Your task to perform on an android device: change alarm snooze length Image 0: 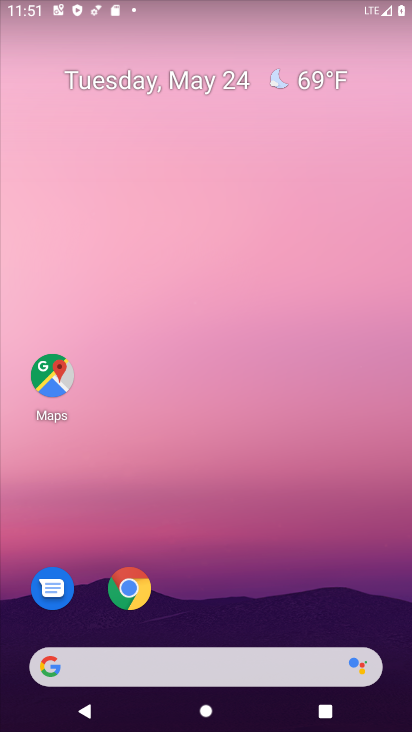
Step 0: drag from (196, 621) to (230, 22)
Your task to perform on an android device: change alarm snooze length Image 1: 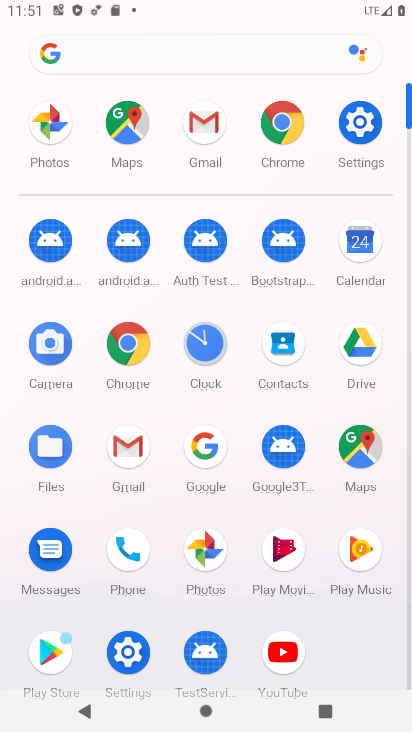
Step 1: click (201, 338)
Your task to perform on an android device: change alarm snooze length Image 2: 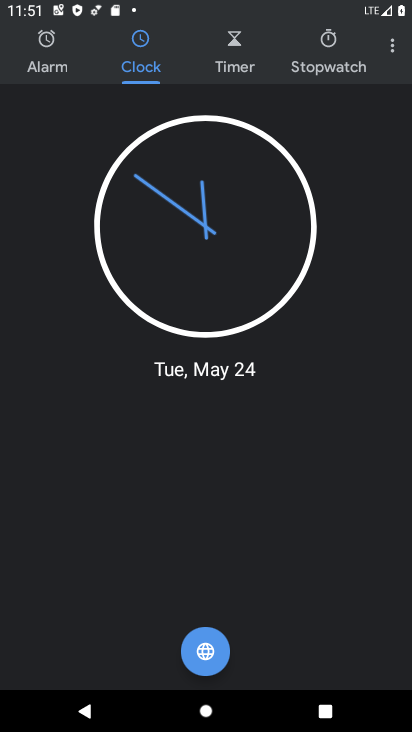
Step 2: click (390, 37)
Your task to perform on an android device: change alarm snooze length Image 3: 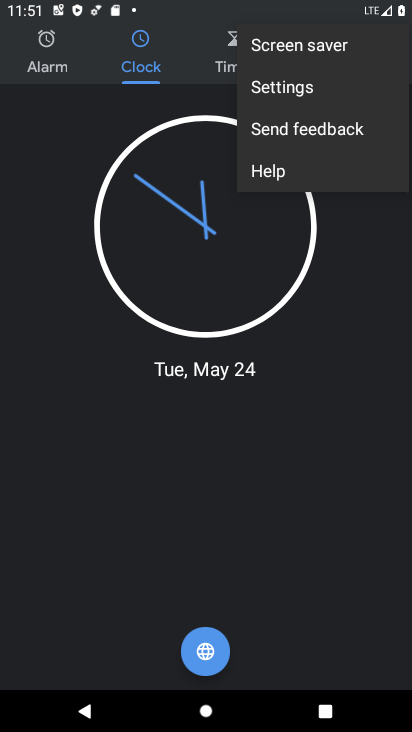
Step 3: click (323, 87)
Your task to perform on an android device: change alarm snooze length Image 4: 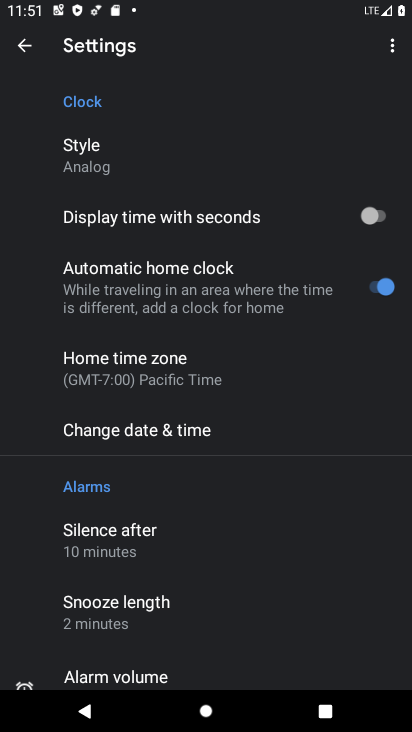
Step 4: click (159, 606)
Your task to perform on an android device: change alarm snooze length Image 5: 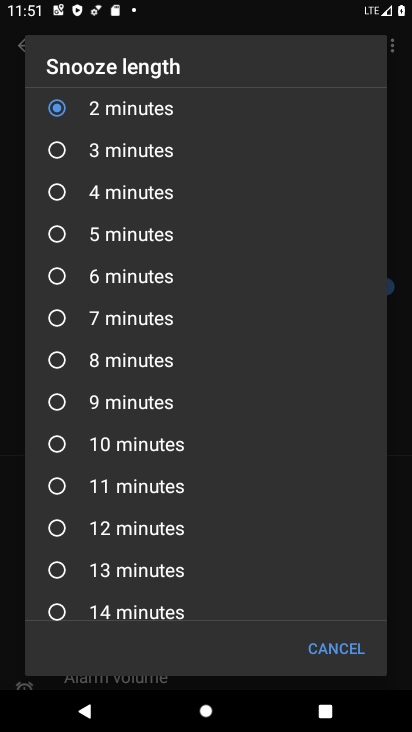
Step 5: click (63, 236)
Your task to perform on an android device: change alarm snooze length Image 6: 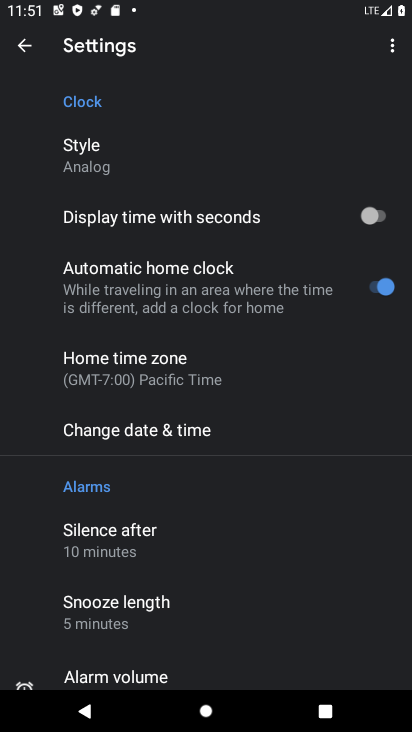
Step 6: task complete